Your task to perform on an android device: Open Youtube and go to "Your channel" Image 0: 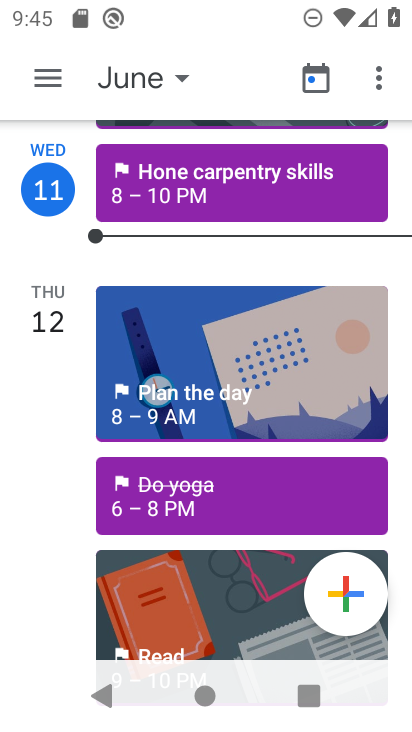
Step 0: press home button
Your task to perform on an android device: Open Youtube and go to "Your channel" Image 1: 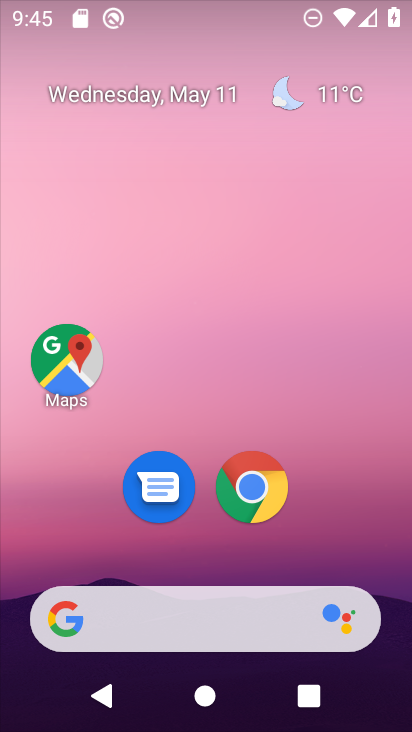
Step 1: drag from (256, 661) to (261, 281)
Your task to perform on an android device: Open Youtube and go to "Your channel" Image 2: 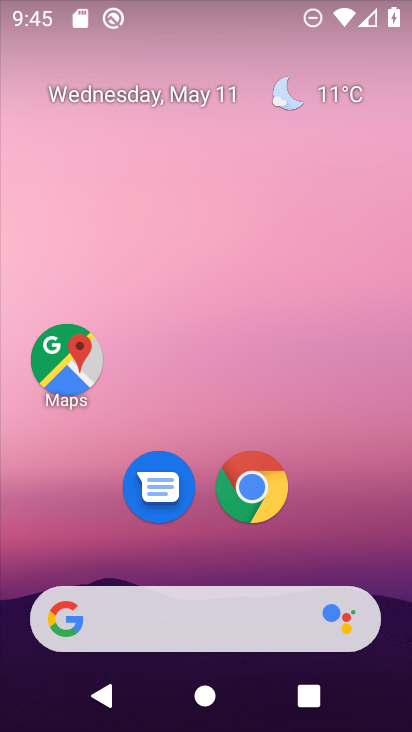
Step 2: drag from (279, 655) to (290, 269)
Your task to perform on an android device: Open Youtube and go to "Your channel" Image 3: 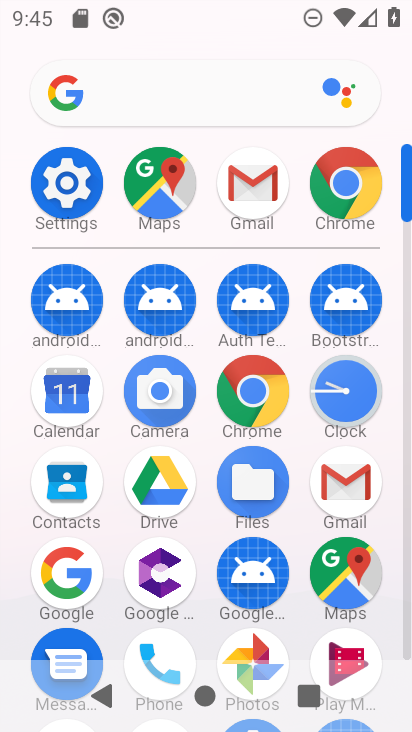
Step 3: drag from (292, 532) to (335, 335)
Your task to perform on an android device: Open Youtube and go to "Your channel" Image 4: 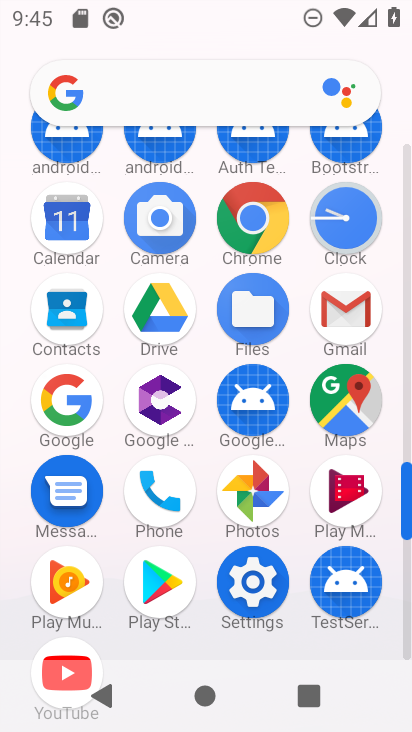
Step 4: click (85, 649)
Your task to perform on an android device: Open Youtube and go to "Your channel" Image 5: 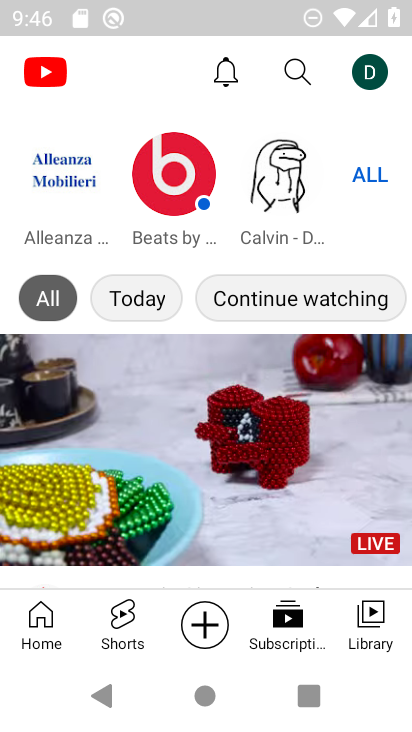
Step 5: click (379, 74)
Your task to perform on an android device: Open Youtube and go to "Your channel" Image 6: 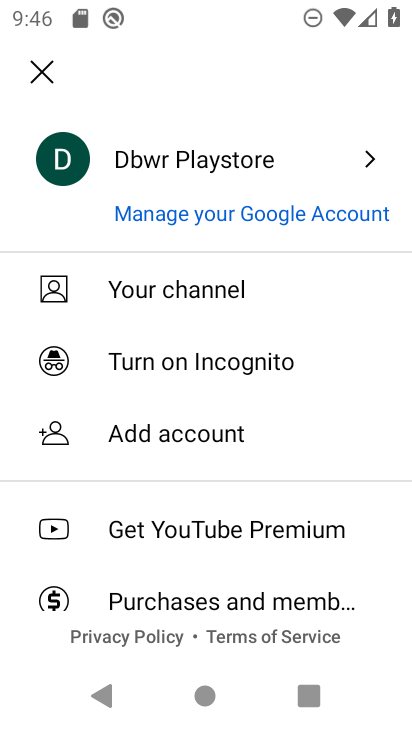
Step 6: click (172, 292)
Your task to perform on an android device: Open Youtube and go to "Your channel" Image 7: 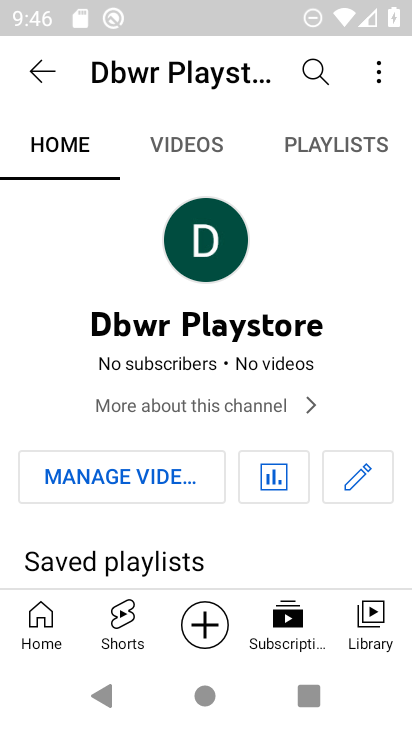
Step 7: task complete